Your task to perform on an android device: turn off notifications settings in the gmail app Image 0: 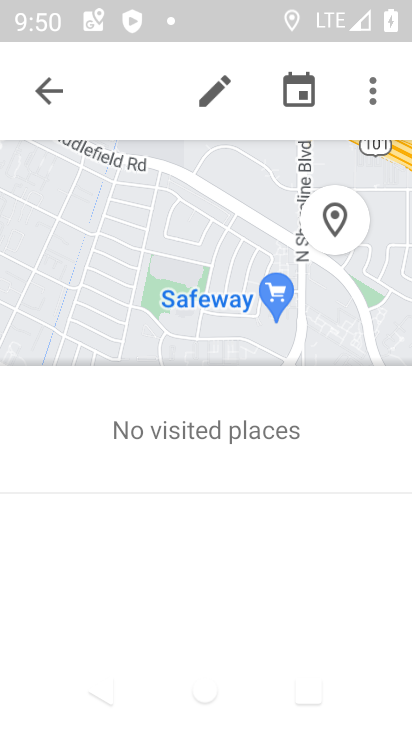
Step 0: press back button
Your task to perform on an android device: turn off notifications settings in the gmail app Image 1: 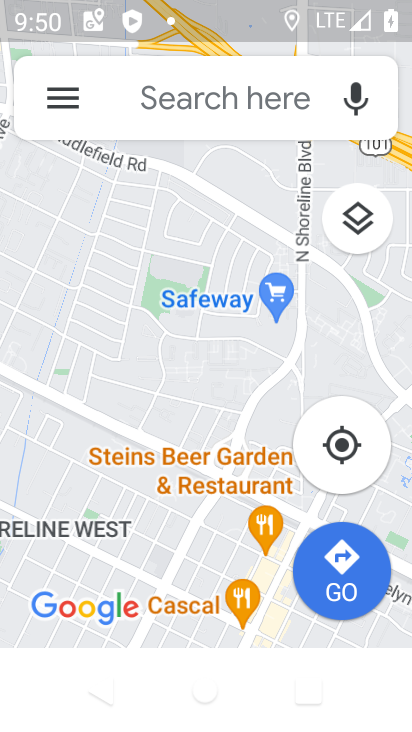
Step 1: press home button
Your task to perform on an android device: turn off notifications settings in the gmail app Image 2: 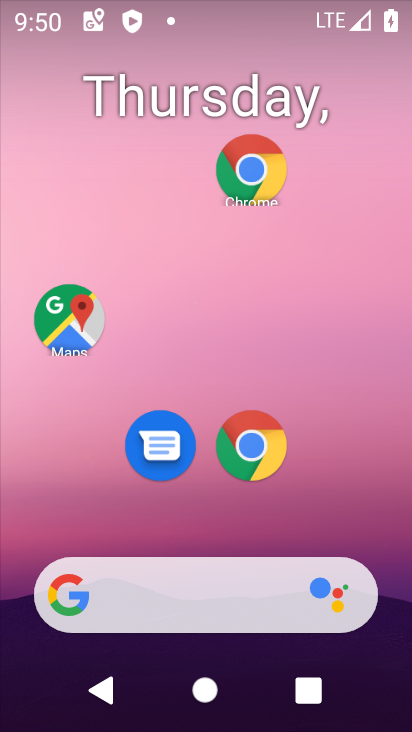
Step 2: drag from (235, 555) to (217, 224)
Your task to perform on an android device: turn off notifications settings in the gmail app Image 3: 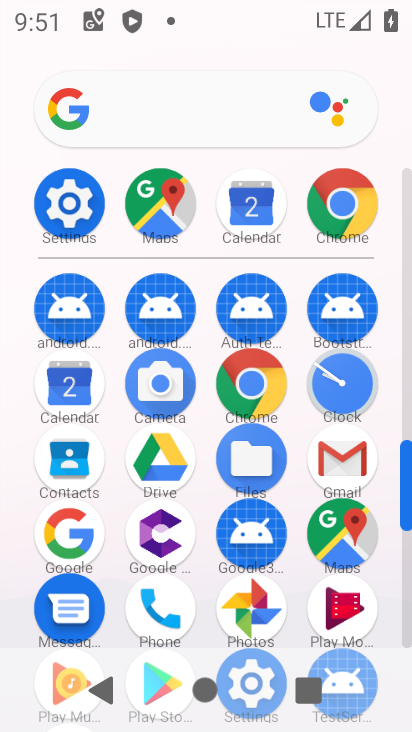
Step 3: click (348, 476)
Your task to perform on an android device: turn off notifications settings in the gmail app Image 4: 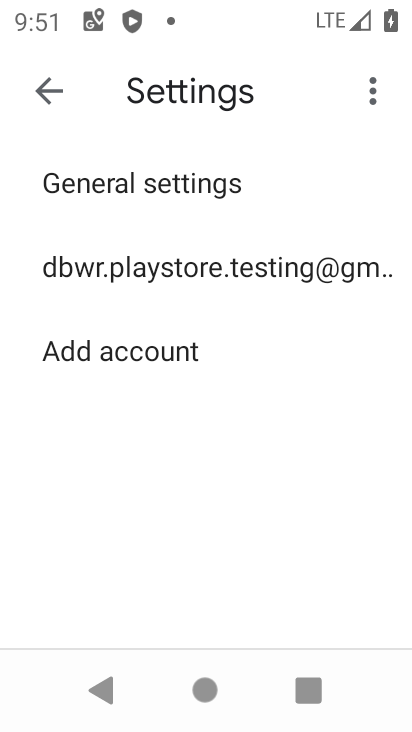
Step 4: click (149, 186)
Your task to perform on an android device: turn off notifications settings in the gmail app Image 5: 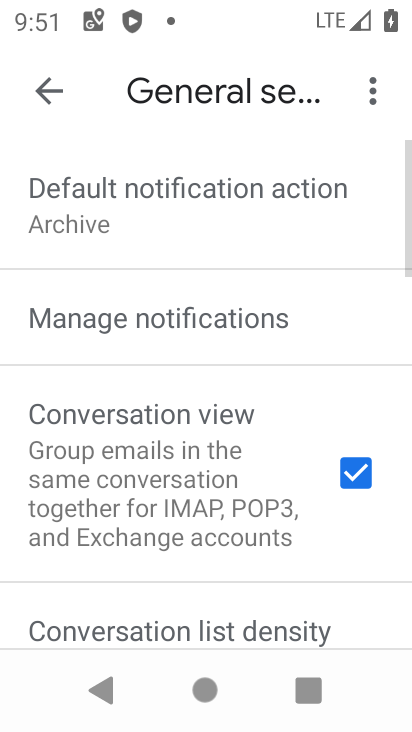
Step 5: click (162, 341)
Your task to perform on an android device: turn off notifications settings in the gmail app Image 6: 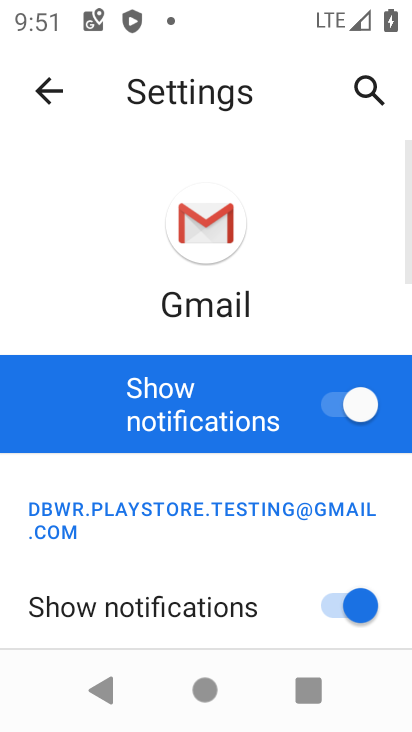
Step 6: click (359, 400)
Your task to perform on an android device: turn off notifications settings in the gmail app Image 7: 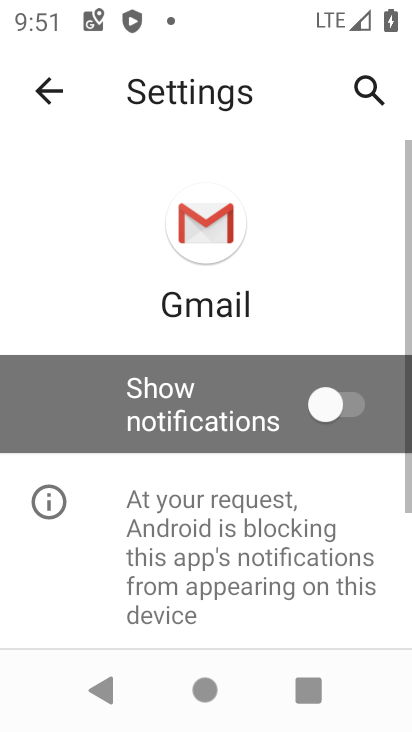
Step 7: task complete